Your task to perform on an android device: change the clock display to show seconds Image 0: 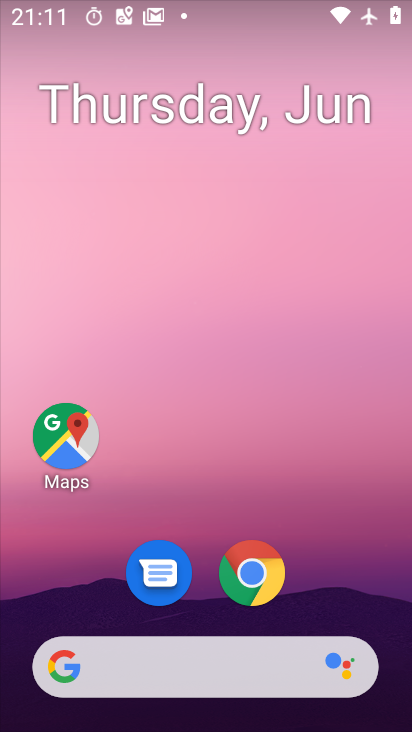
Step 0: drag from (267, 587) to (260, 185)
Your task to perform on an android device: change the clock display to show seconds Image 1: 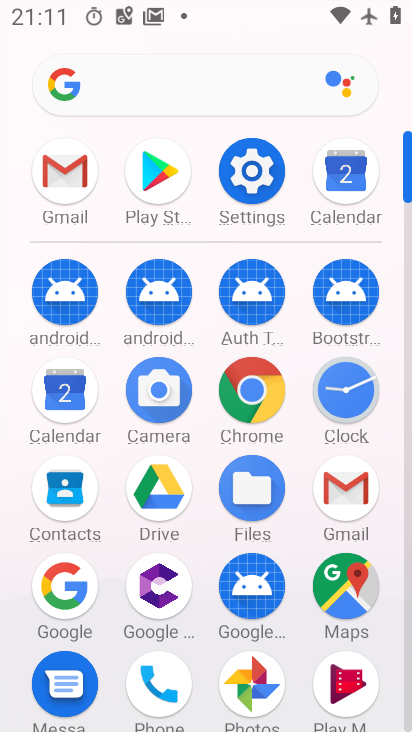
Step 1: click (332, 389)
Your task to perform on an android device: change the clock display to show seconds Image 2: 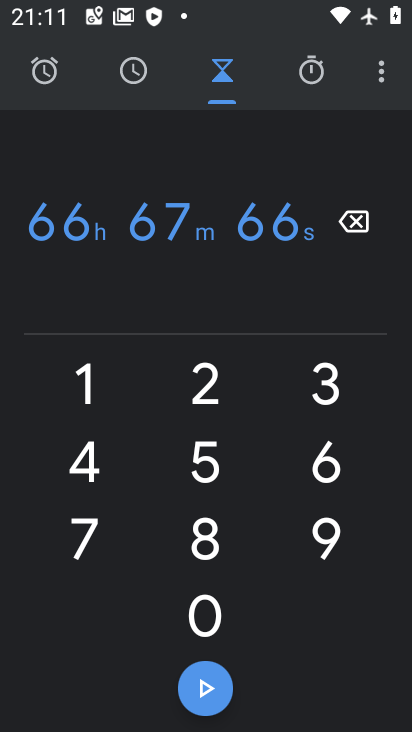
Step 2: click (388, 75)
Your task to perform on an android device: change the clock display to show seconds Image 3: 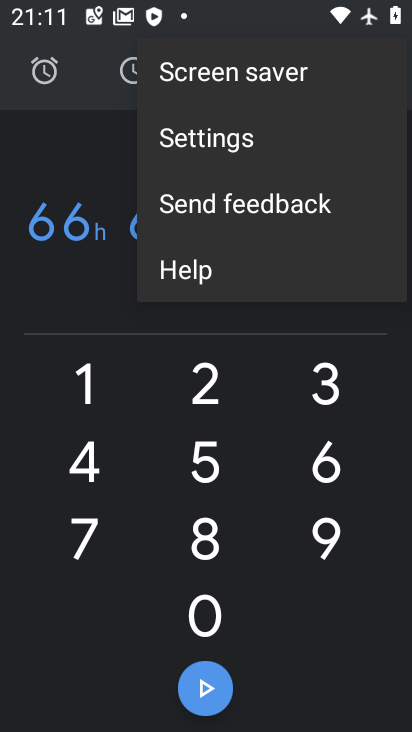
Step 3: click (262, 130)
Your task to perform on an android device: change the clock display to show seconds Image 4: 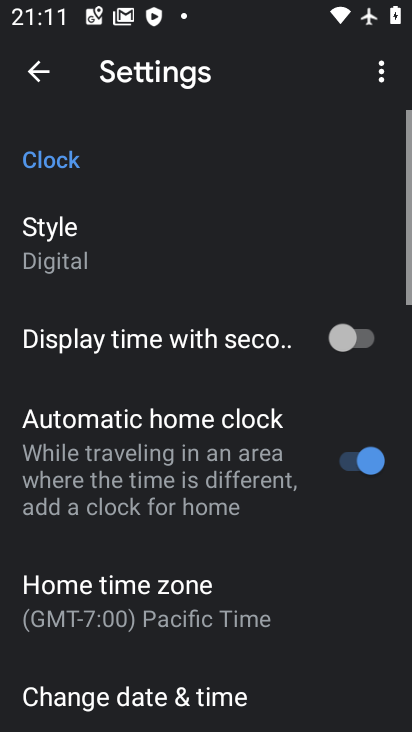
Step 4: click (103, 239)
Your task to perform on an android device: change the clock display to show seconds Image 5: 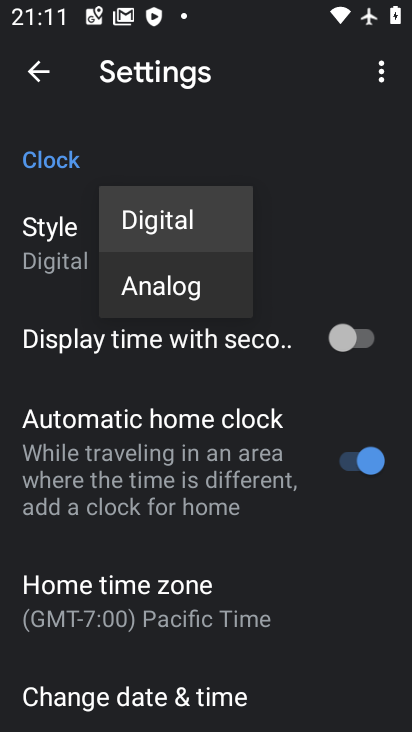
Step 5: click (327, 307)
Your task to perform on an android device: change the clock display to show seconds Image 6: 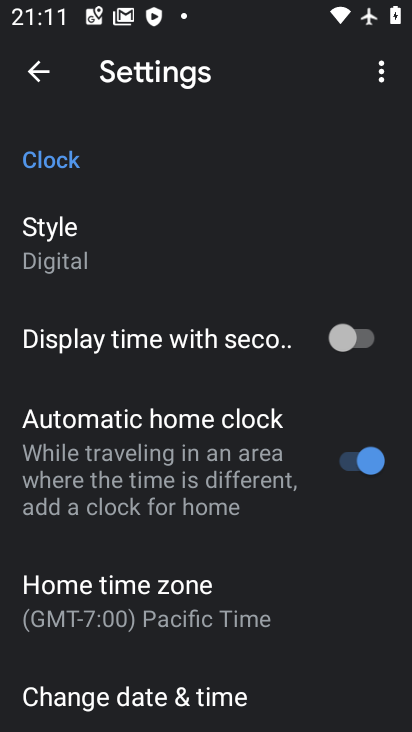
Step 6: click (368, 334)
Your task to perform on an android device: change the clock display to show seconds Image 7: 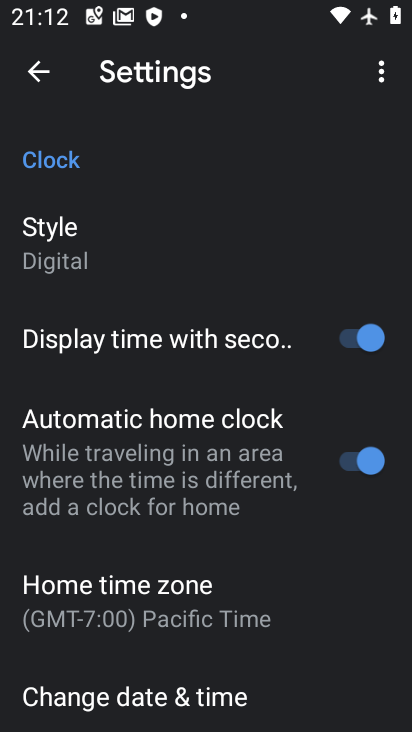
Step 7: task complete